Your task to perform on an android device: Turn on the flashlight Image 0: 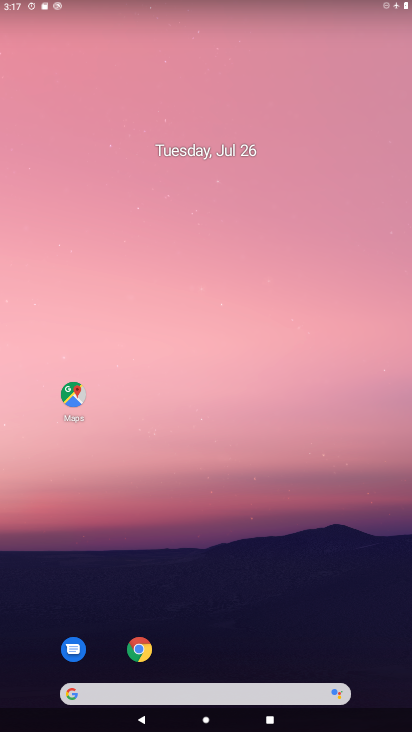
Step 0: drag from (384, 646) to (263, 20)
Your task to perform on an android device: Turn on the flashlight Image 1: 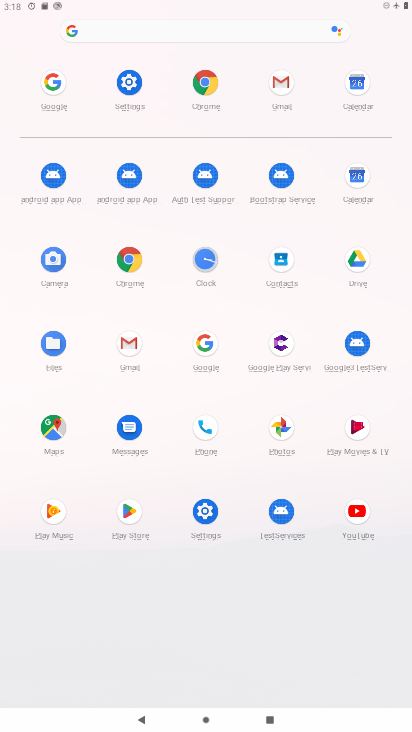
Step 1: click (196, 515)
Your task to perform on an android device: Turn on the flashlight Image 2: 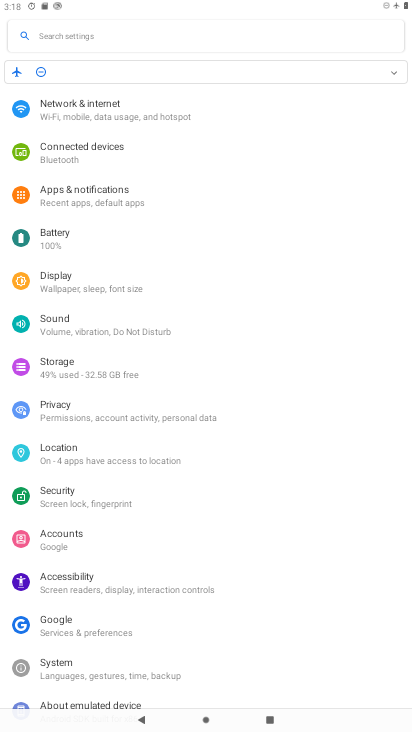
Step 2: task complete